Your task to perform on an android device: show emergency info Image 0: 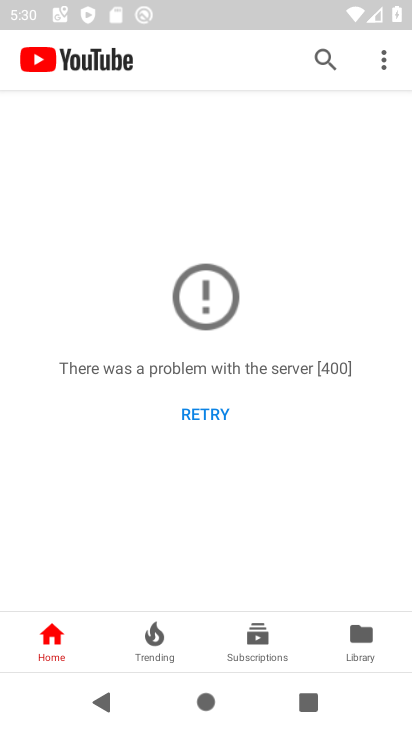
Step 0: press home button
Your task to perform on an android device: show emergency info Image 1: 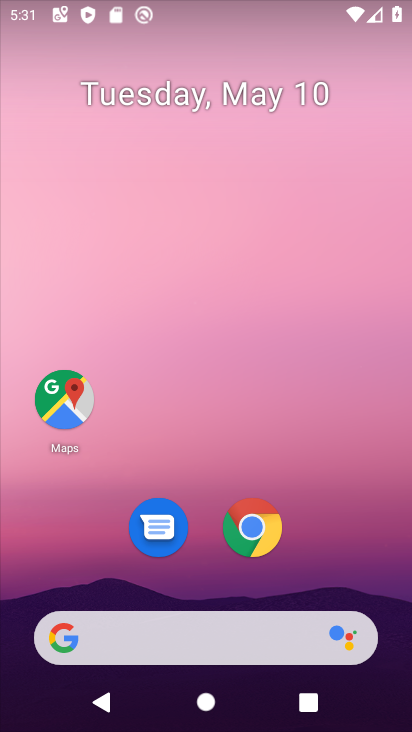
Step 1: drag from (332, 572) to (387, 0)
Your task to perform on an android device: show emergency info Image 2: 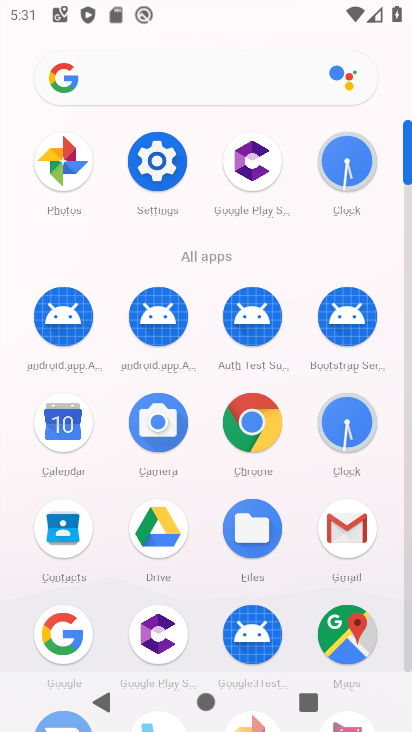
Step 2: click (153, 167)
Your task to perform on an android device: show emergency info Image 3: 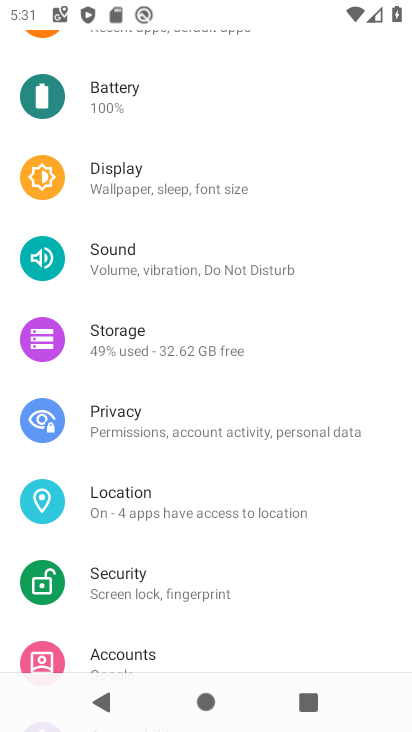
Step 3: drag from (251, 567) to (291, 34)
Your task to perform on an android device: show emergency info Image 4: 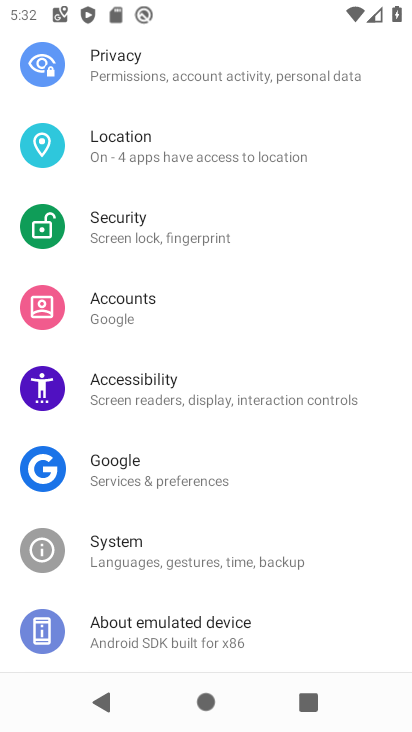
Step 4: drag from (305, 561) to (379, 56)
Your task to perform on an android device: show emergency info Image 5: 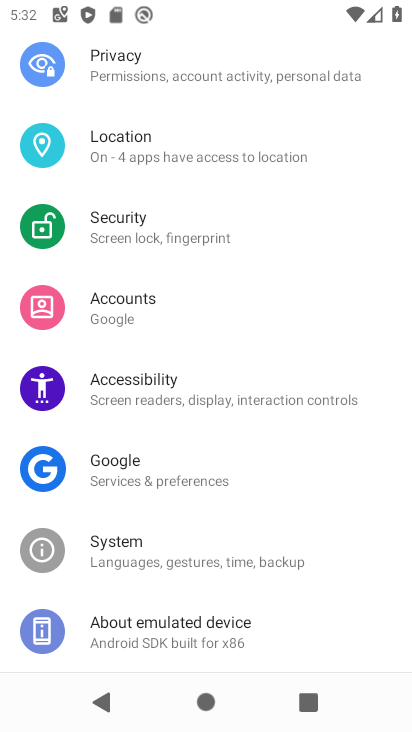
Step 5: drag from (167, 138) to (185, 688)
Your task to perform on an android device: show emergency info Image 6: 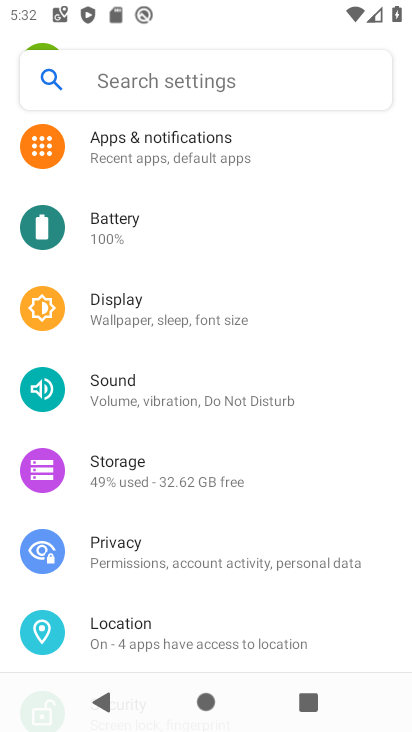
Step 6: click (172, 69)
Your task to perform on an android device: show emergency info Image 7: 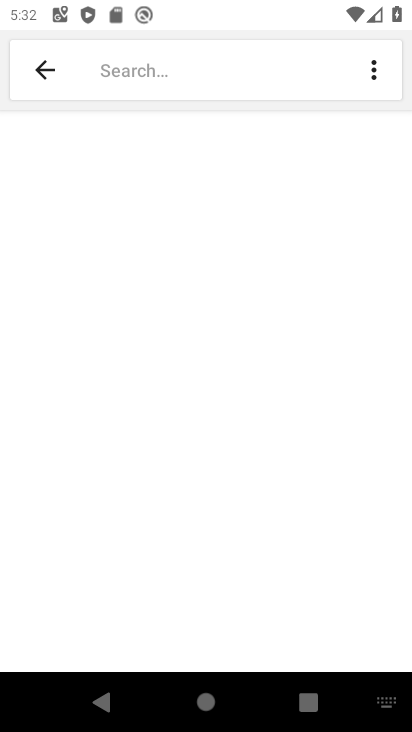
Step 7: type "emergency info"
Your task to perform on an android device: show emergency info Image 8: 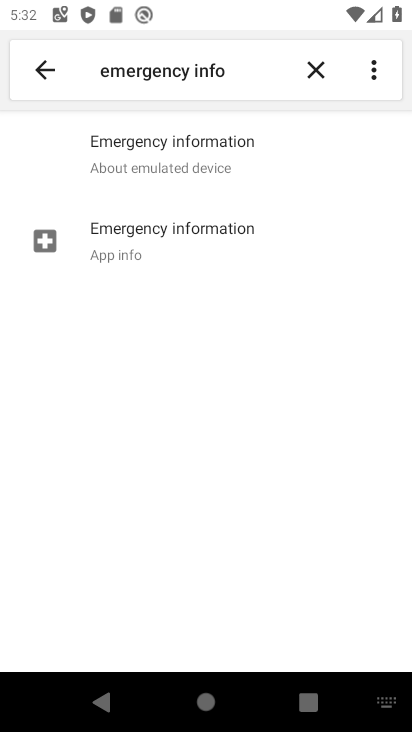
Step 8: click (176, 154)
Your task to perform on an android device: show emergency info Image 9: 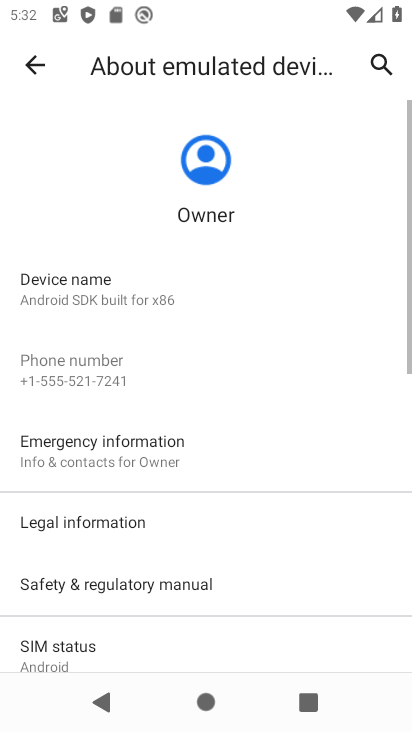
Step 9: task complete